Your task to perform on an android device: Go to Google Image 0: 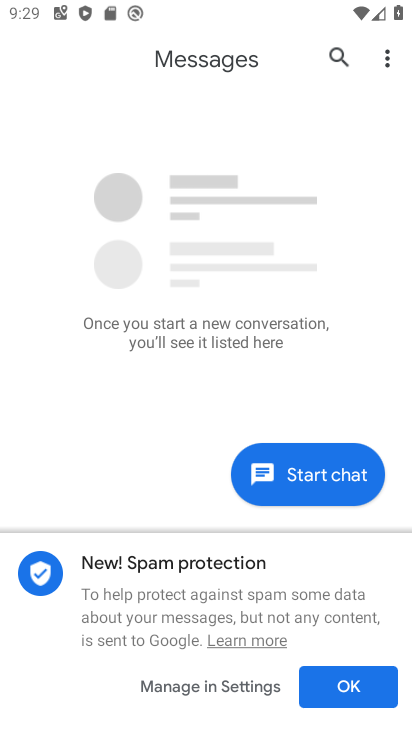
Step 0: press home button
Your task to perform on an android device: Go to Google Image 1: 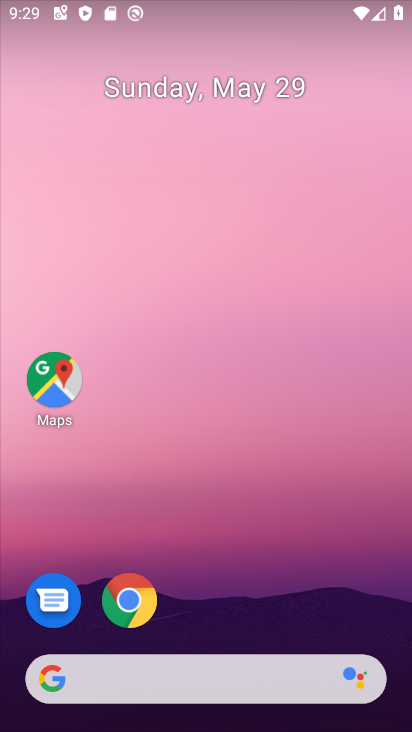
Step 1: drag from (236, 730) to (215, 141)
Your task to perform on an android device: Go to Google Image 2: 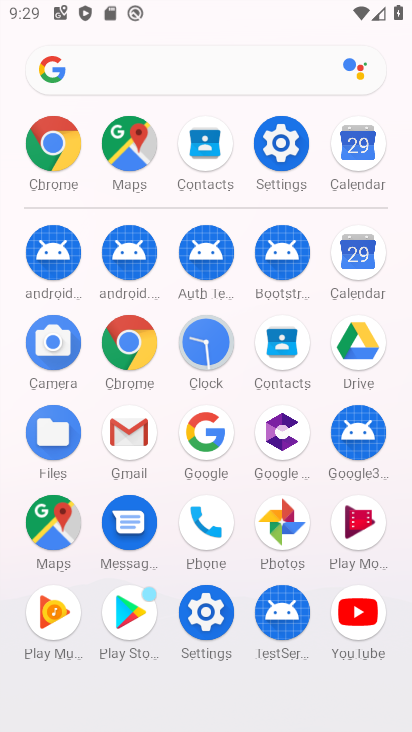
Step 2: click (205, 428)
Your task to perform on an android device: Go to Google Image 3: 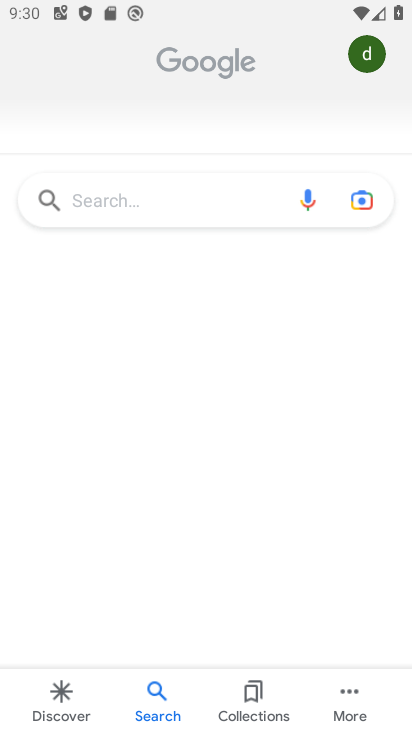
Step 3: task complete